Your task to perform on an android device: see tabs open on other devices in the chrome app Image 0: 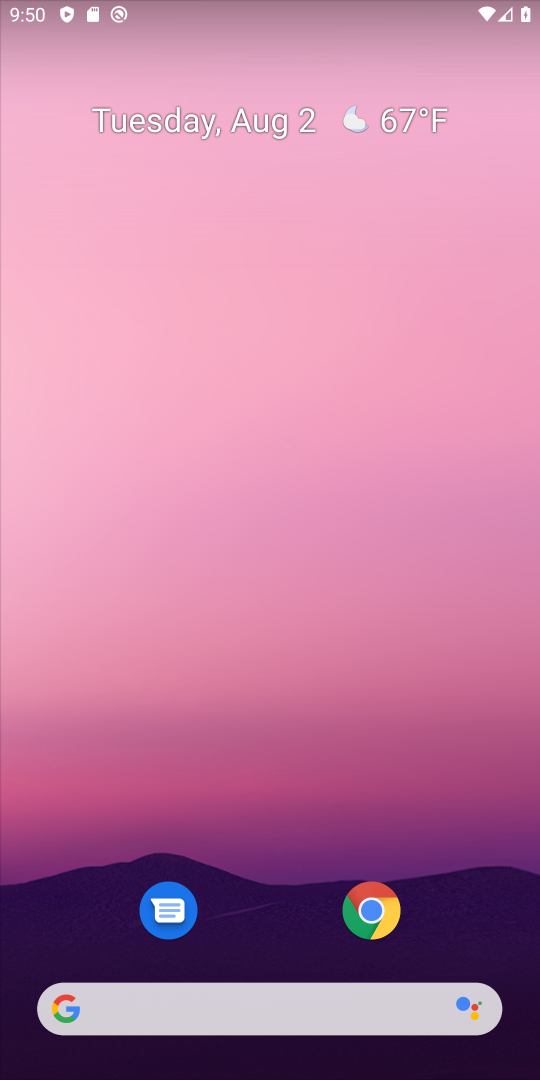
Step 0: drag from (212, 946) to (277, 330)
Your task to perform on an android device: see tabs open on other devices in the chrome app Image 1: 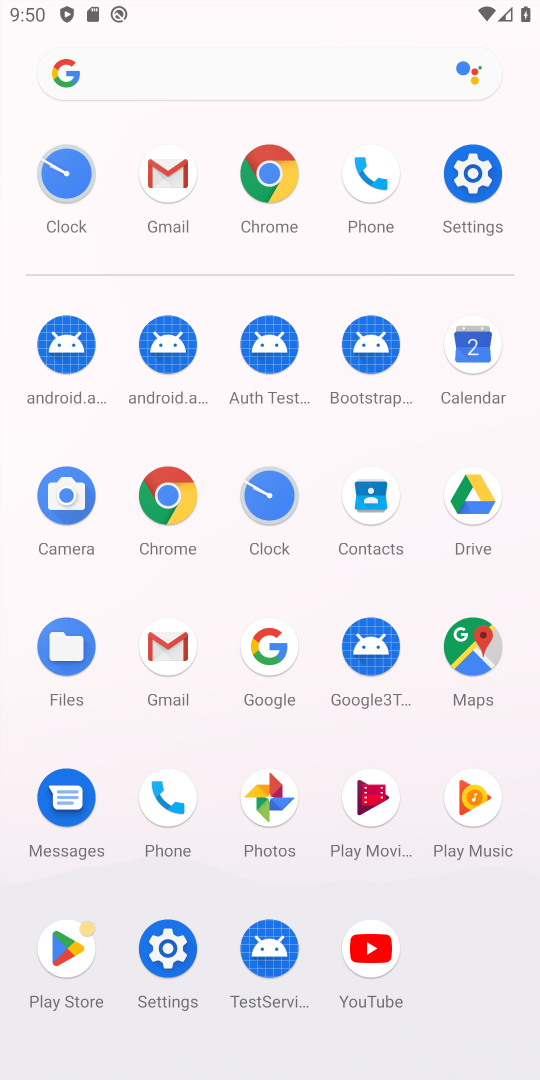
Step 1: click (285, 156)
Your task to perform on an android device: see tabs open on other devices in the chrome app Image 2: 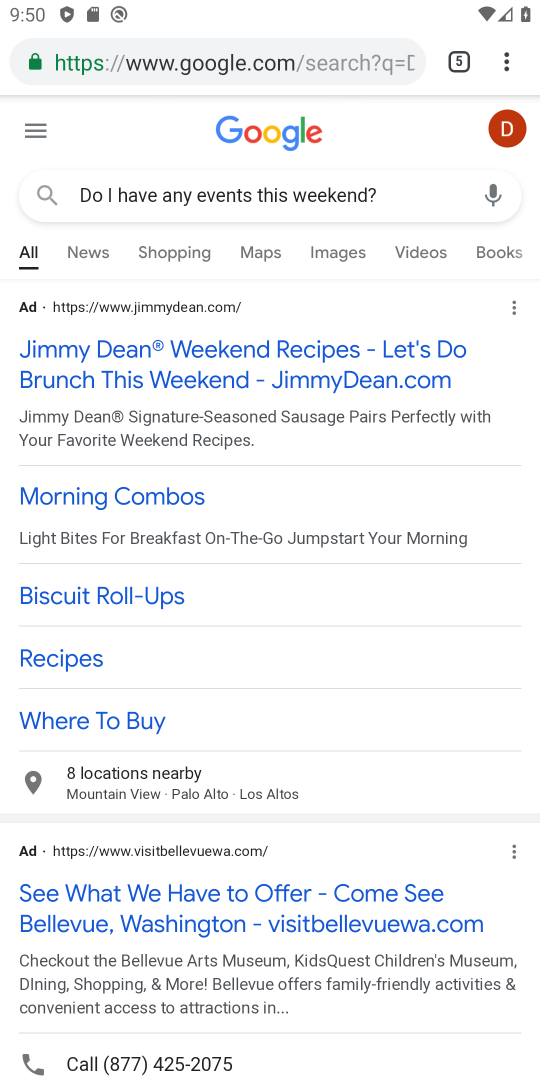
Step 2: click (511, 65)
Your task to perform on an android device: see tabs open on other devices in the chrome app Image 3: 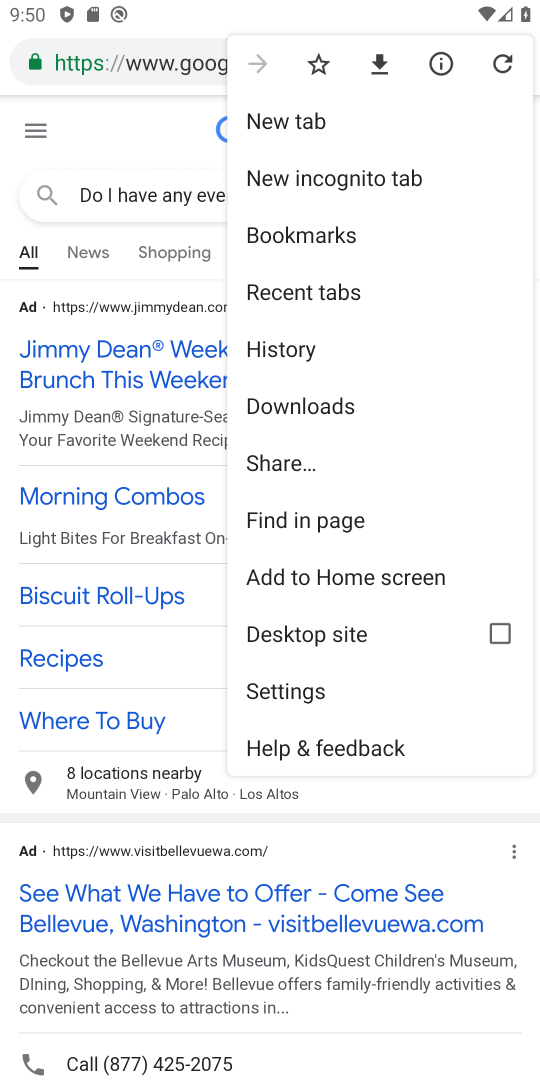
Step 3: click (275, 346)
Your task to perform on an android device: see tabs open on other devices in the chrome app Image 4: 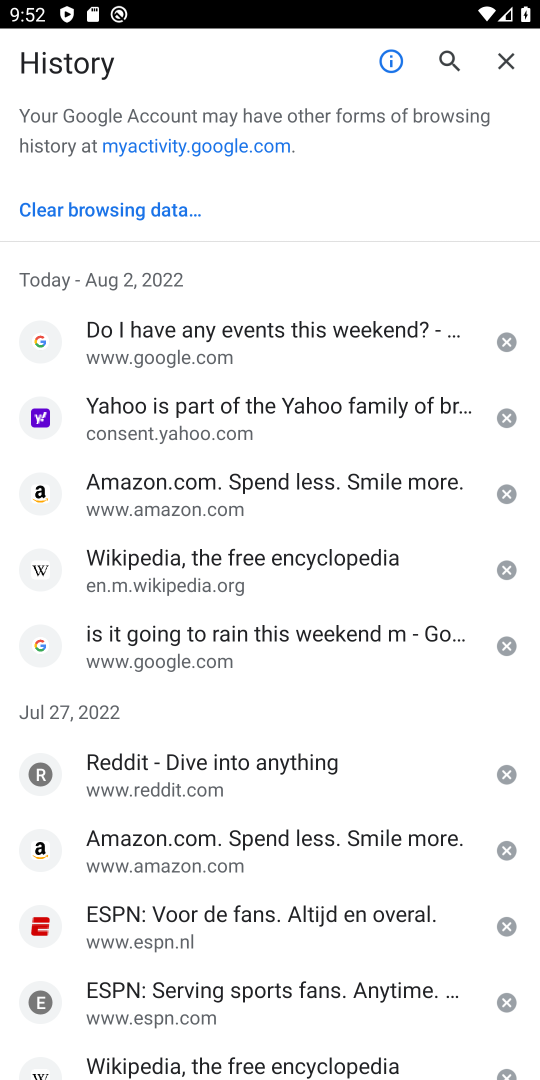
Step 4: task complete